Your task to perform on an android device: turn notification dots on Image 0: 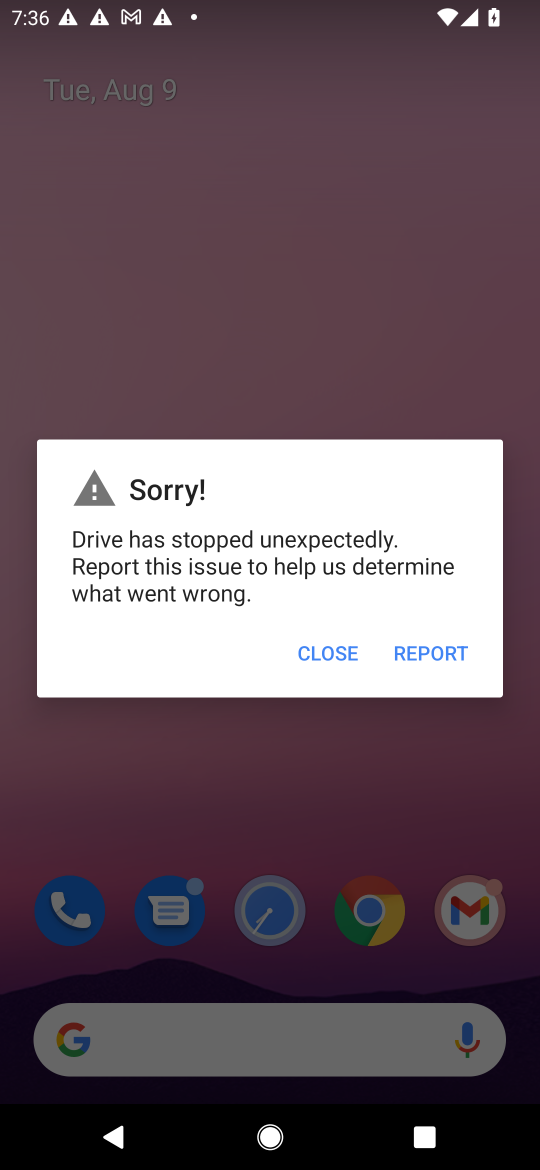
Step 0: click (327, 658)
Your task to perform on an android device: turn notification dots on Image 1: 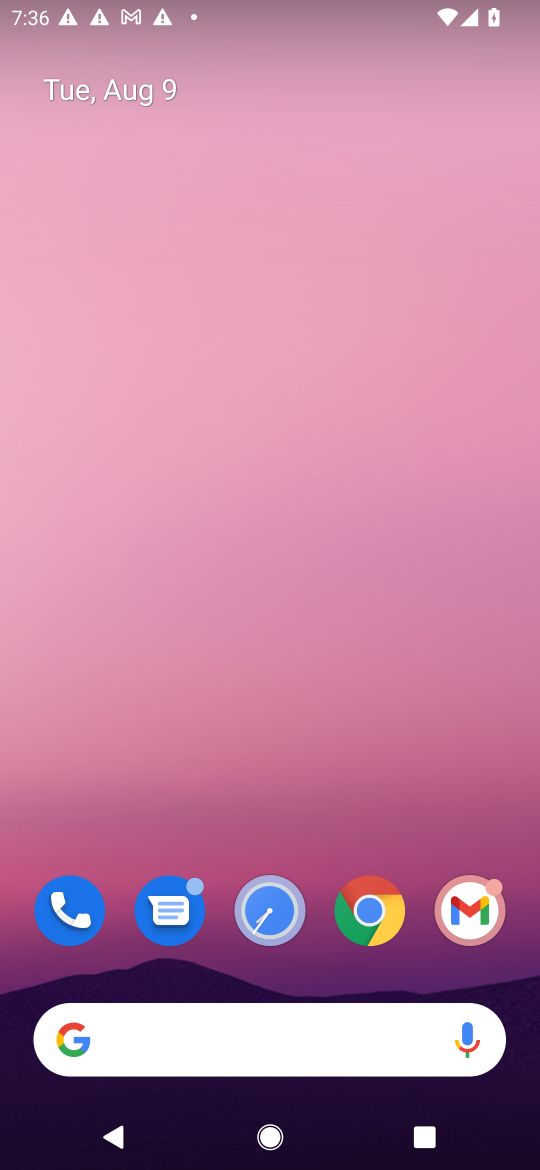
Step 1: drag from (287, 801) to (324, 1)
Your task to perform on an android device: turn notification dots on Image 2: 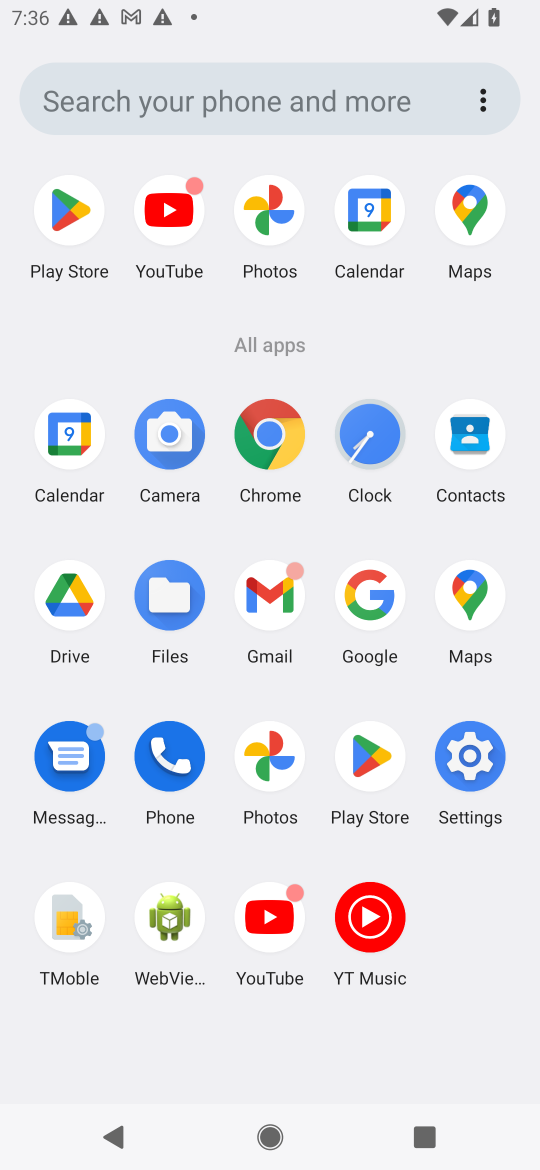
Step 2: click (471, 776)
Your task to perform on an android device: turn notification dots on Image 3: 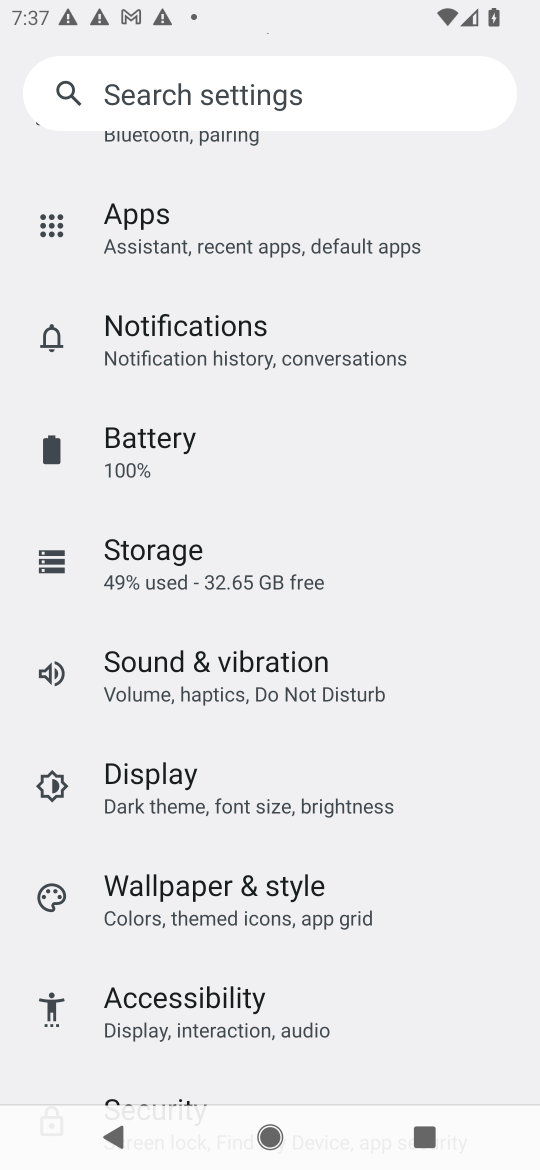
Step 3: click (222, 345)
Your task to perform on an android device: turn notification dots on Image 4: 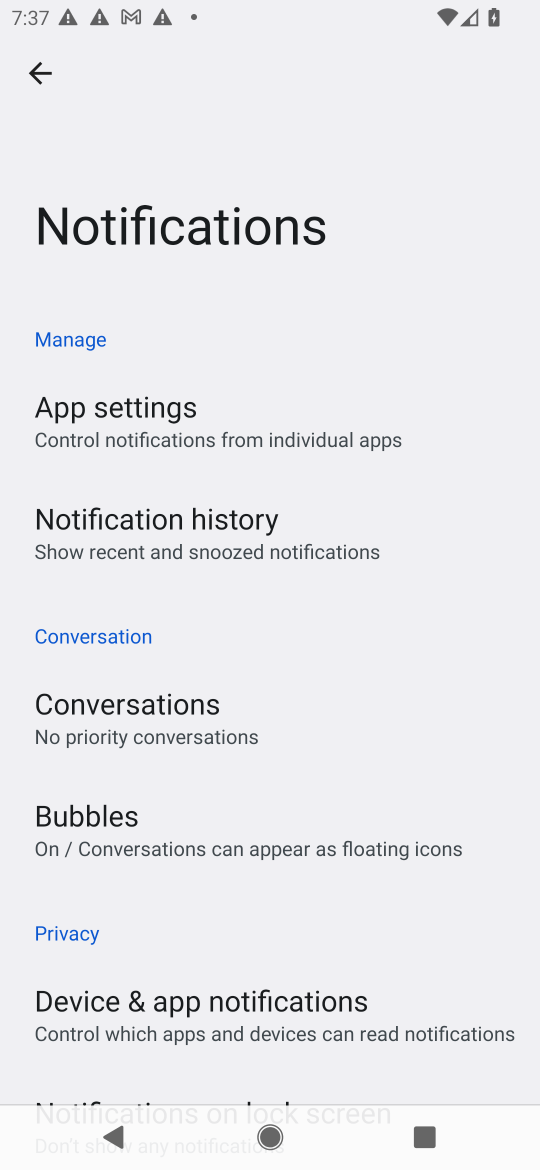
Step 4: task complete